Your task to perform on an android device: turn on the 12-hour format for clock Image 0: 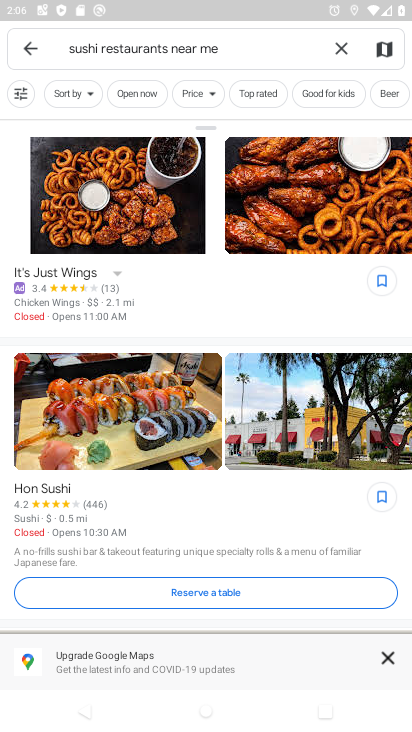
Step 0: press home button
Your task to perform on an android device: turn on the 12-hour format for clock Image 1: 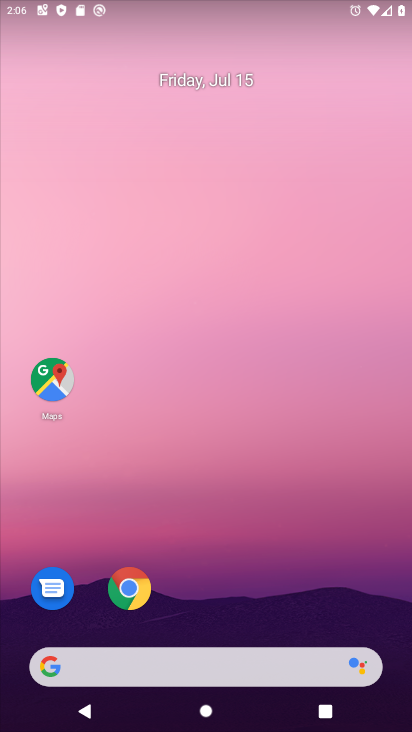
Step 1: drag from (261, 634) to (324, 135)
Your task to perform on an android device: turn on the 12-hour format for clock Image 2: 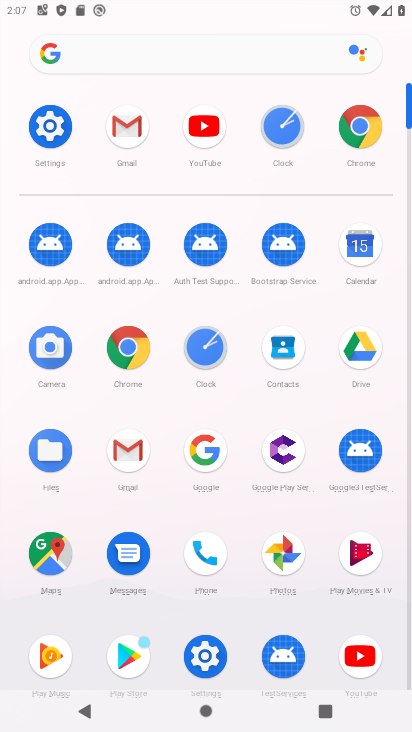
Step 2: click (283, 125)
Your task to perform on an android device: turn on the 12-hour format for clock Image 3: 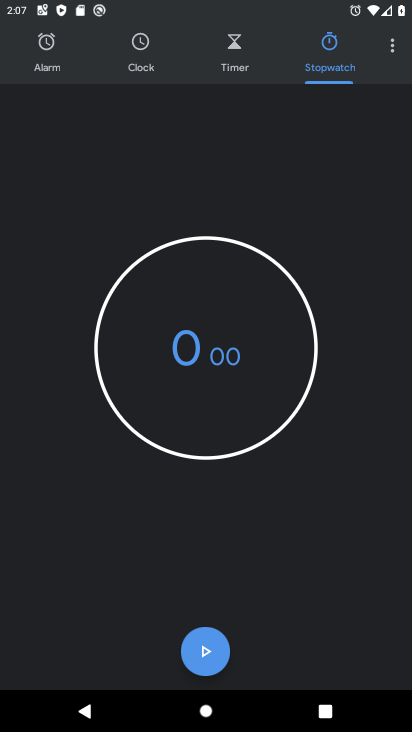
Step 3: click (393, 49)
Your task to perform on an android device: turn on the 12-hour format for clock Image 4: 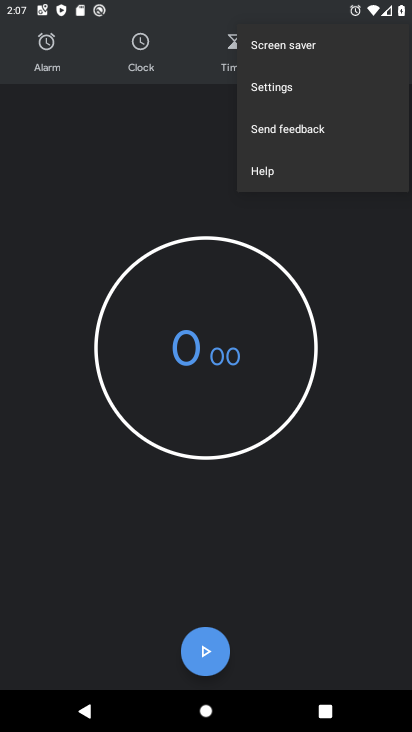
Step 4: click (281, 89)
Your task to perform on an android device: turn on the 12-hour format for clock Image 5: 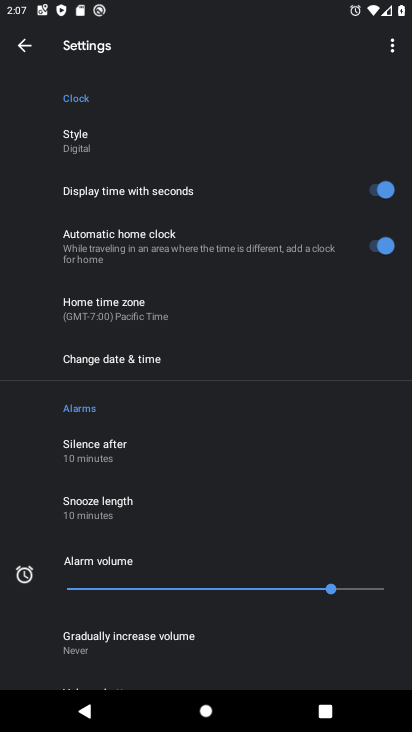
Step 5: click (124, 362)
Your task to perform on an android device: turn on the 12-hour format for clock Image 6: 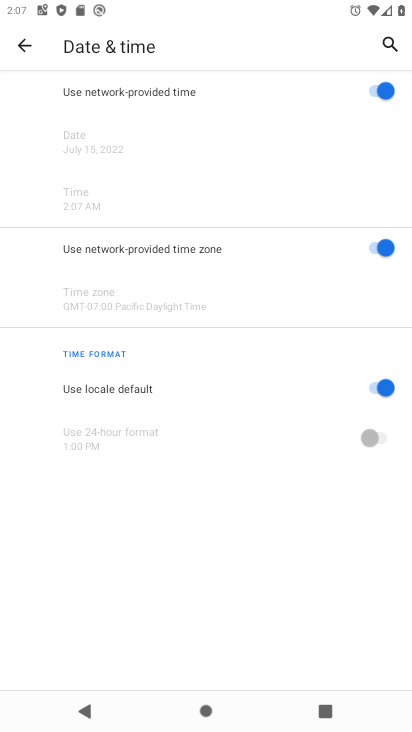
Step 6: task complete